Your task to perform on an android device: turn on wifi Image 0: 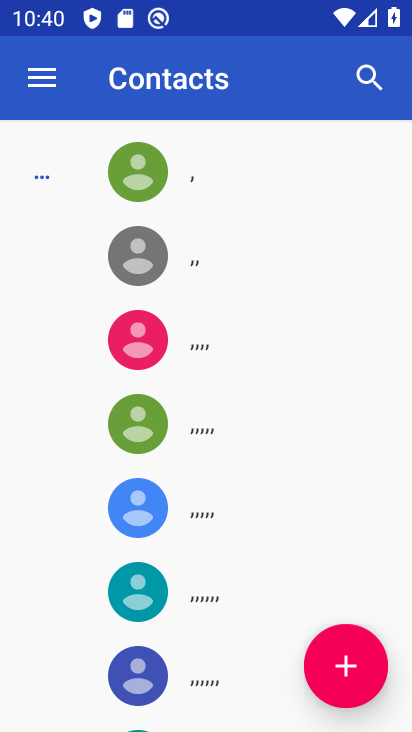
Step 0: press home button
Your task to perform on an android device: turn on wifi Image 1: 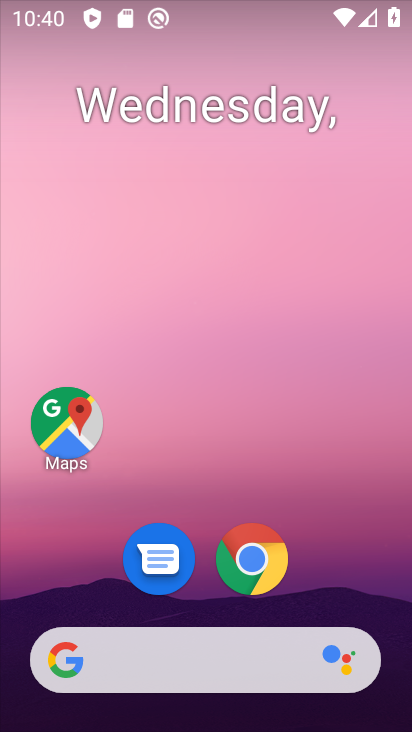
Step 1: drag from (373, 588) to (294, 146)
Your task to perform on an android device: turn on wifi Image 2: 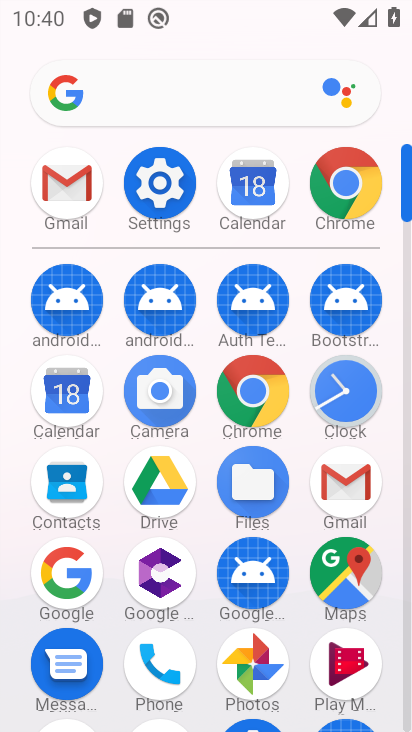
Step 2: click (158, 180)
Your task to perform on an android device: turn on wifi Image 3: 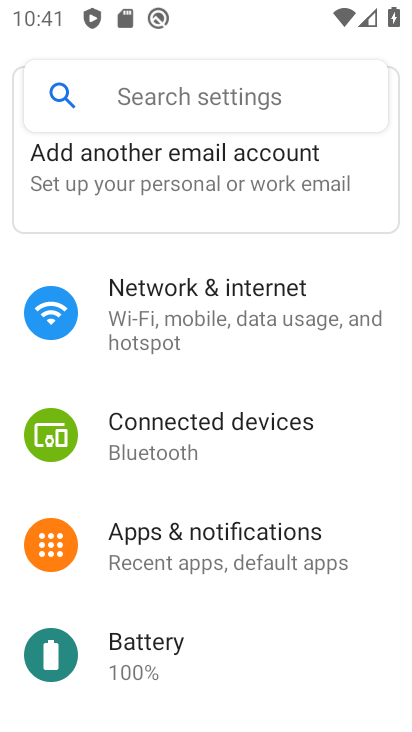
Step 3: click (209, 313)
Your task to perform on an android device: turn on wifi Image 4: 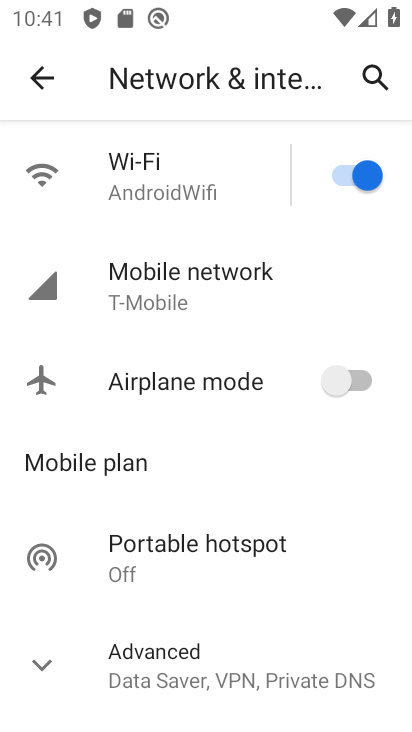
Step 4: task complete